Your task to perform on an android device: What's the weather today? Image 0: 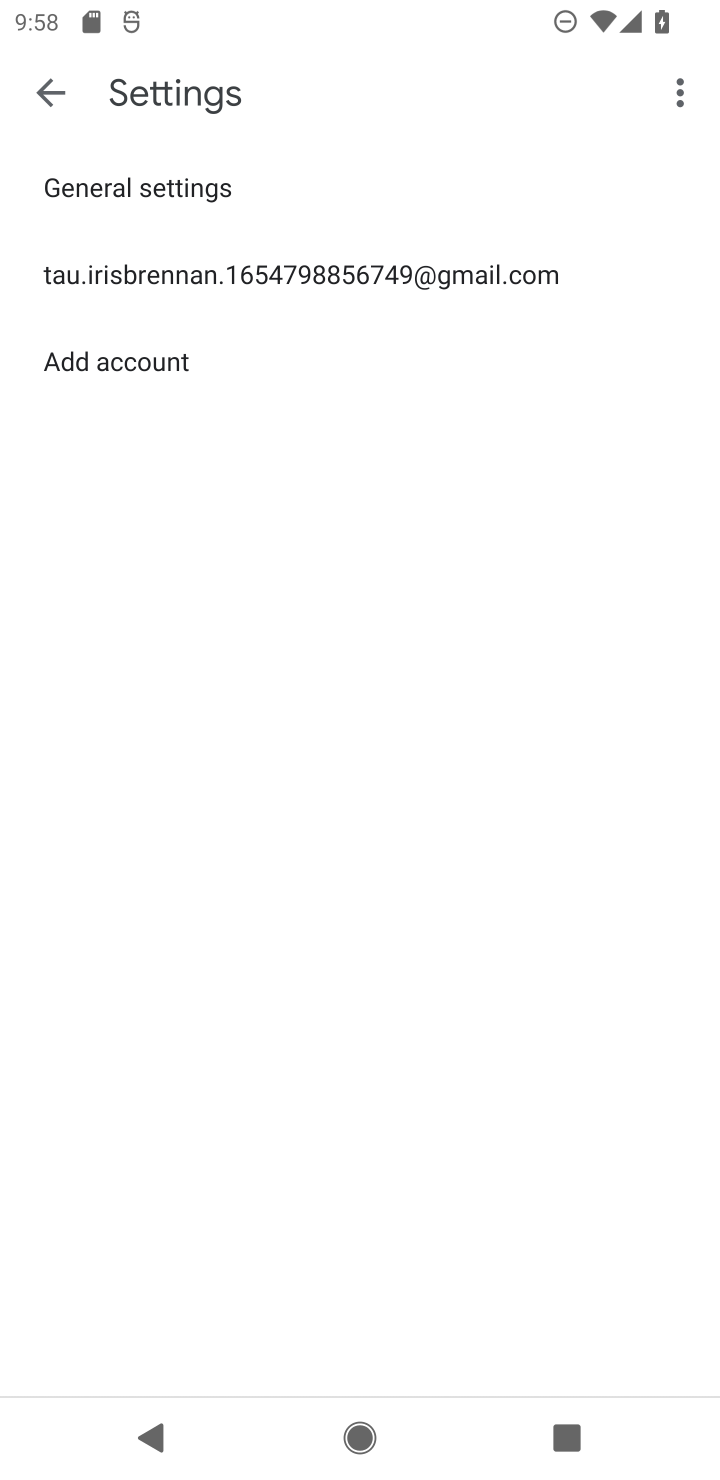
Step 0: press home button
Your task to perform on an android device: What's the weather today? Image 1: 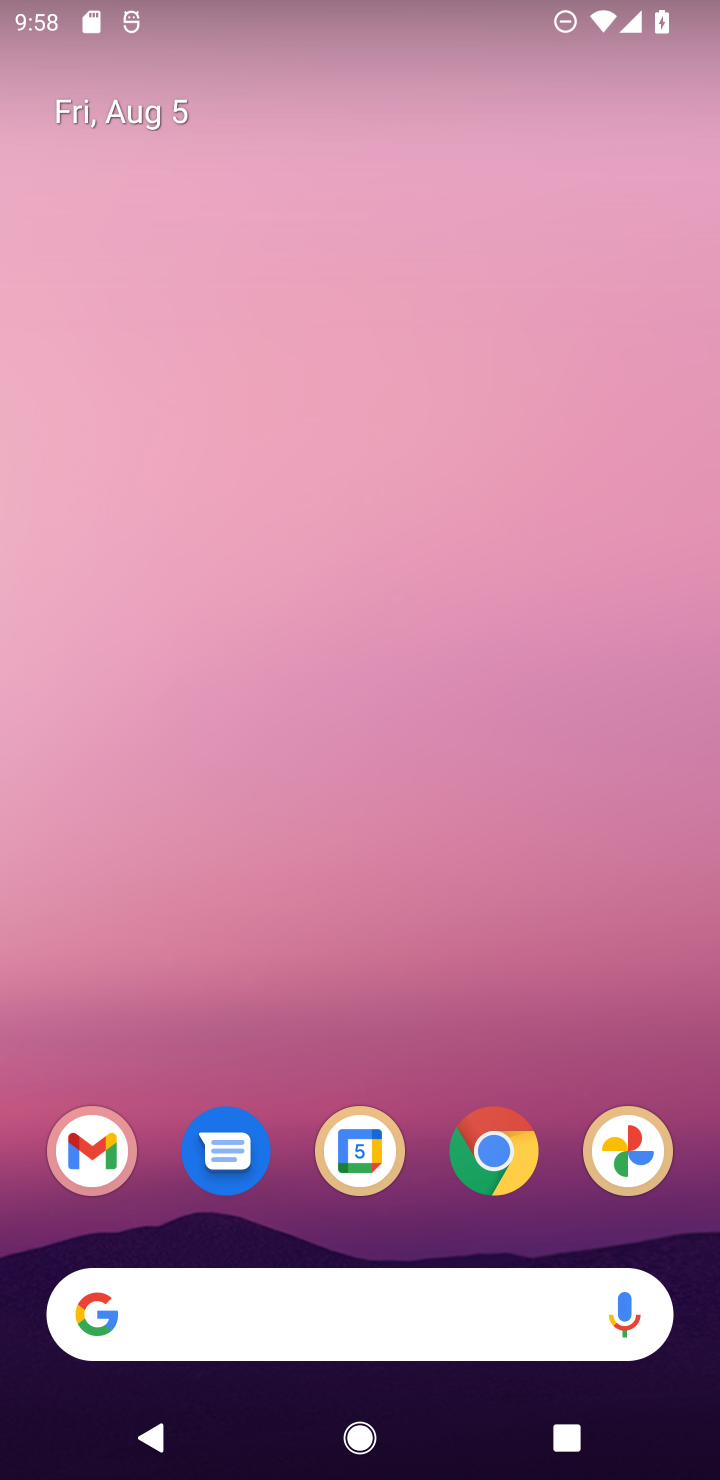
Step 1: drag from (319, 996) to (375, 101)
Your task to perform on an android device: What's the weather today? Image 2: 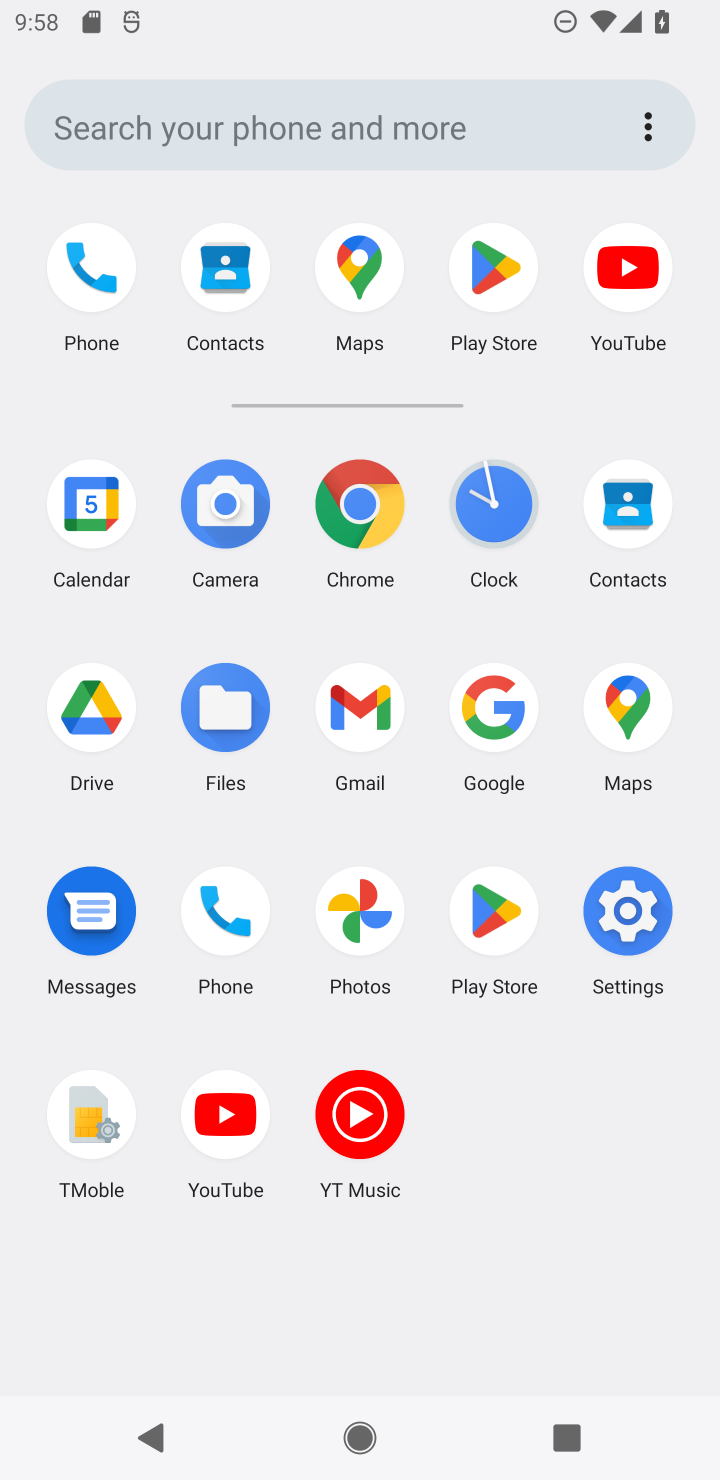
Step 2: click (481, 746)
Your task to perform on an android device: What's the weather today? Image 3: 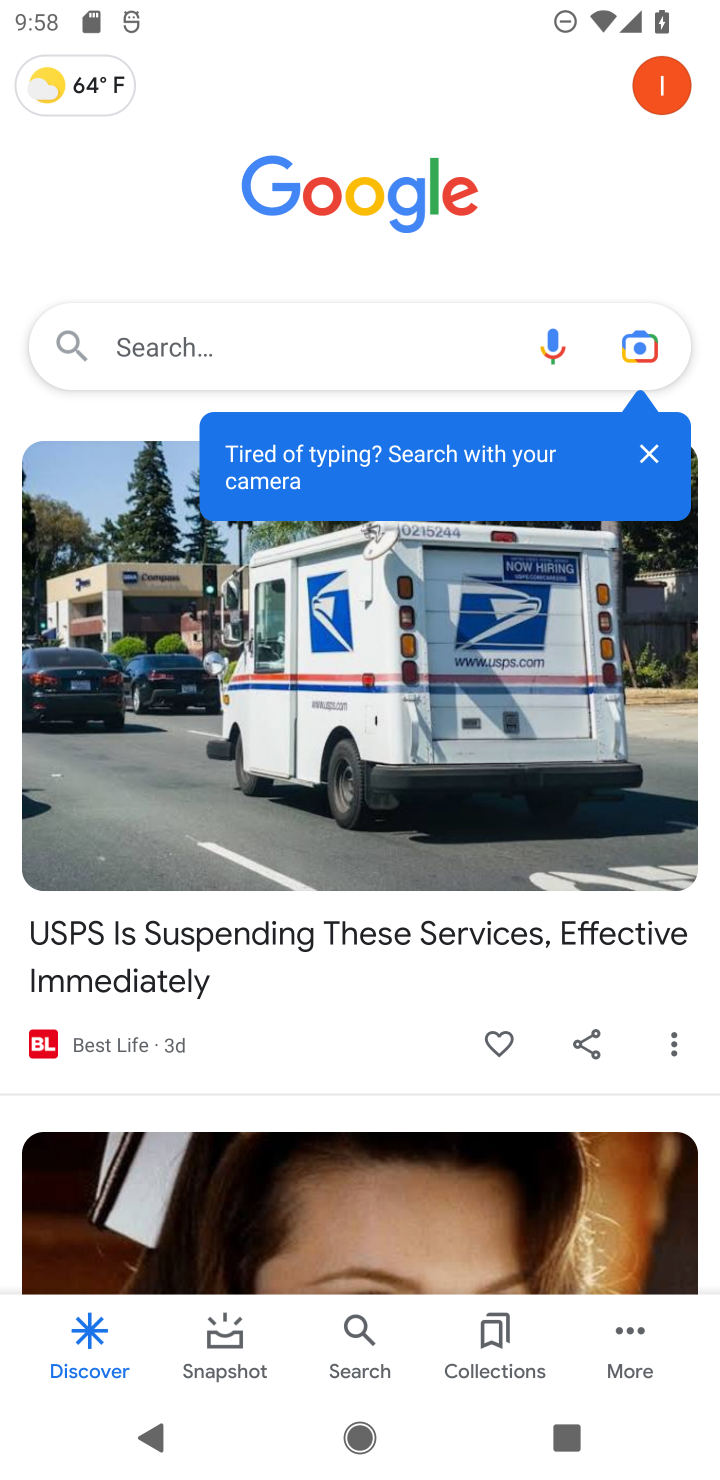
Step 3: click (293, 358)
Your task to perform on an android device: What's the weather today? Image 4: 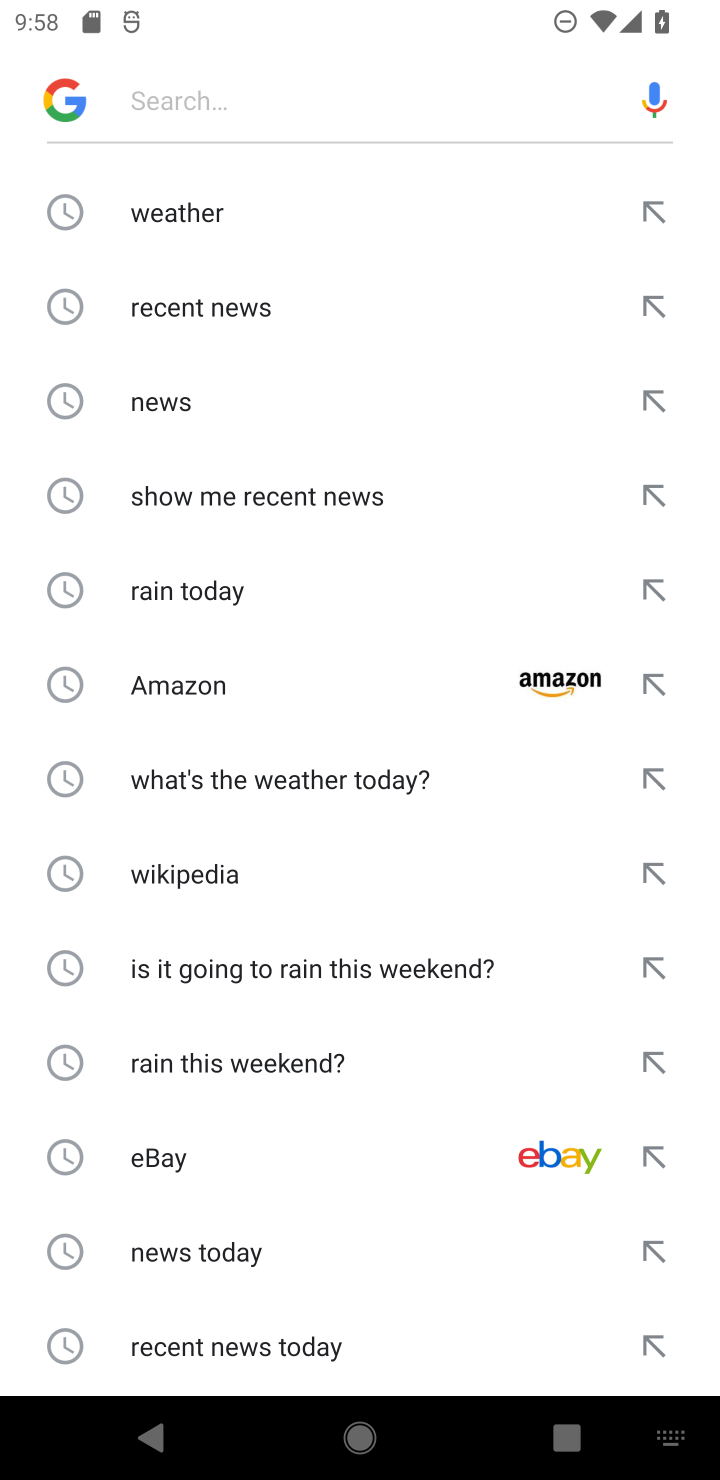
Step 4: click (179, 206)
Your task to perform on an android device: What's the weather today? Image 5: 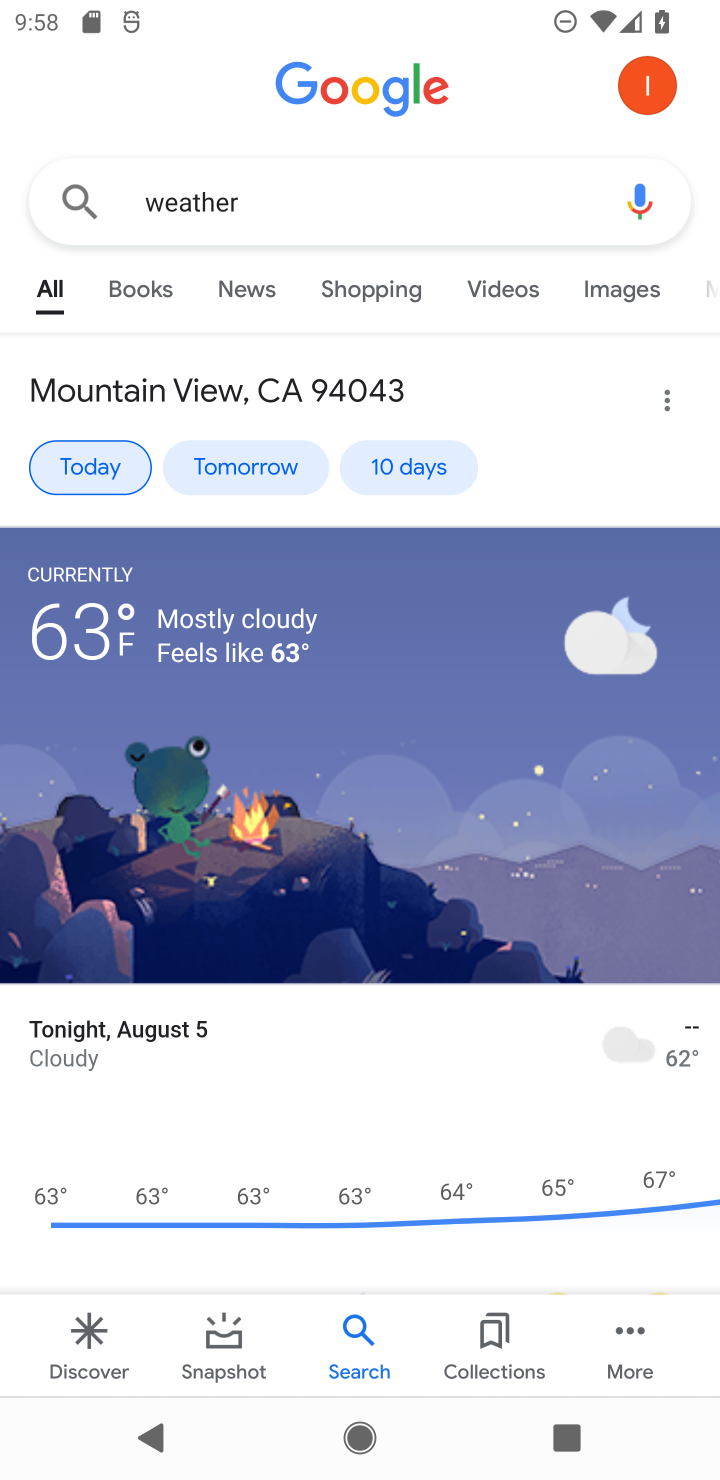
Step 5: task complete